Your task to perform on an android device: View the shopping cart on newegg. Add asus zenbook to the cart on newegg Image 0: 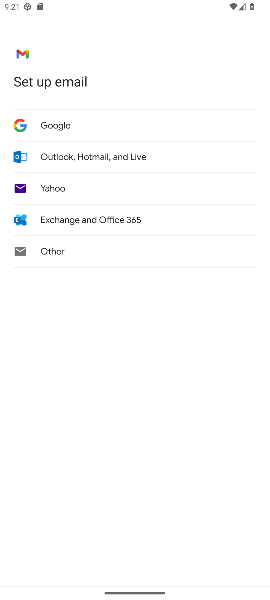
Step 0: press home button
Your task to perform on an android device: View the shopping cart on newegg. Add asus zenbook to the cart on newegg Image 1: 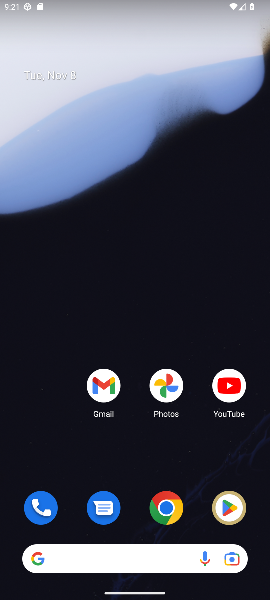
Step 1: click (167, 517)
Your task to perform on an android device: View the shopping cart on newegg. Add asus zenbook to the cart on newegg Image 2: 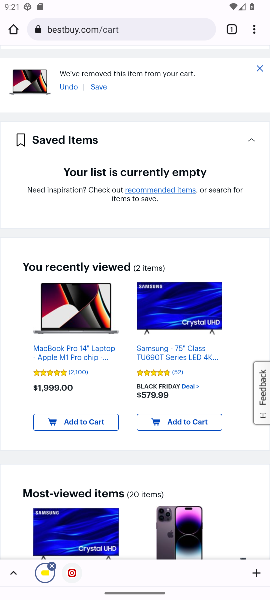
Step 2: click (111, 27)
Your task to perform on an android device: View the shopping cart on newegg. Add asus zenbook to the cart on newegg Image 3: 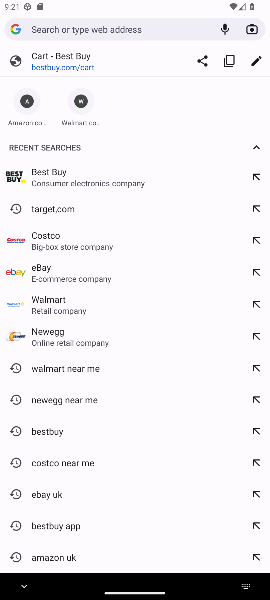
Step 3: click (69, 345)
Your task to perform on an android device: View the shopping cart on newegg. Add asus zenbook to the cart on newegg Image 4: 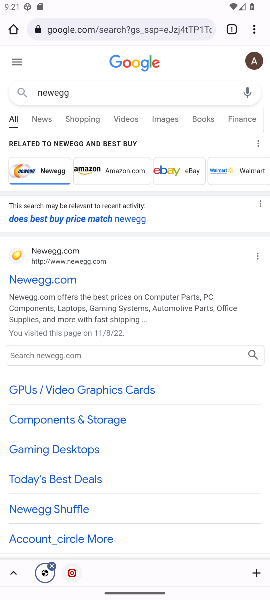
Step 4: click (69, 283)
Your task to perform on an android device: View the shopping cart on newegg. Add asus zenbook to the cart on newegg Image 5: 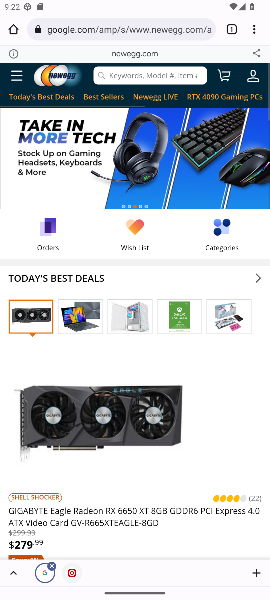
Step 5: click (126, 79)
Your task to perform on an android device: View the shopping cart on newegg. Add asus zenbook to the cart on newegg Image 6: 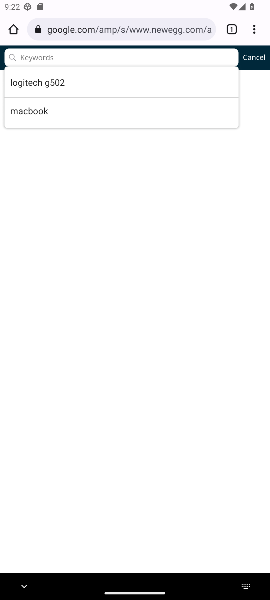
Step 6: type "asus zenbook"
Your task to perform on an android device: View the shopping cart on newegg. Add asus zenbook to the cart on newegg Image 7: 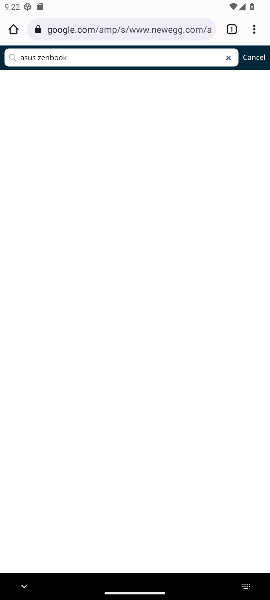
Step 7: click (230, 59)
Your task to perform on an android device: View the shopping cart on newegg. Add asus zenbook to the cart on newegg Image 8: 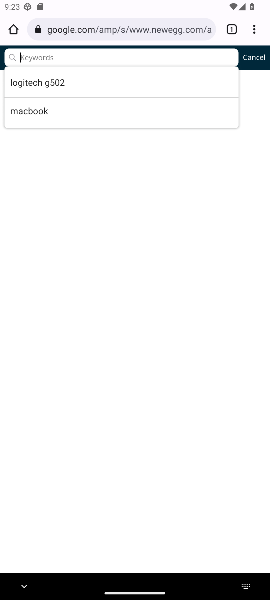
Step 8: type "asus zenbook"
Your task to perform on an android device: View the shopping cart on newegg. Add asus zenbook to the cart on newegg Image 9: 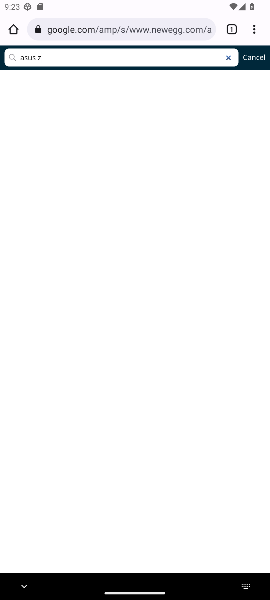
Step 9: type ""
Your task to perform on an android device: View the shopping cart on newegg. Add asus zenbook to the cart on newegg Image 10: 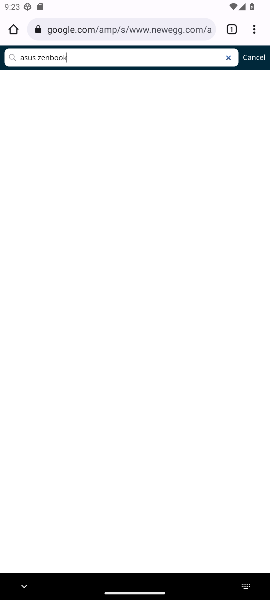
Step 10: click (227, 60)
Your task to perform on an android device: View the shopping cart on newegg. Add asus zenbook to the cart on newegg Image 11: 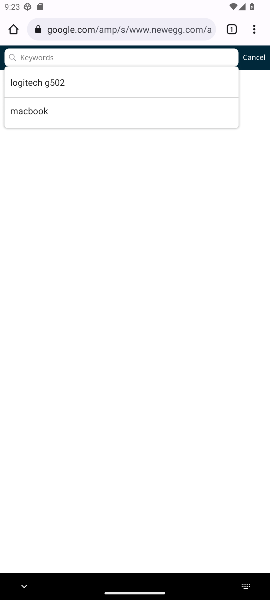
Step 11: press back button
Your task to perform on an android device: View the shopping cart on newegg. Add asus zenbook to the cart on newegg Image 12: 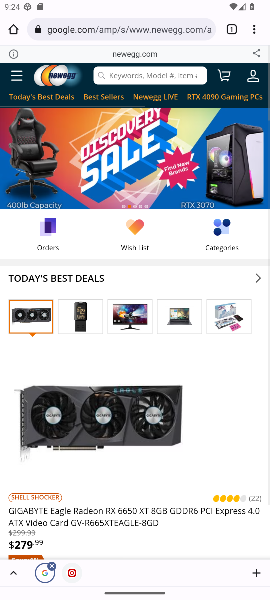
Step 12: click (124, 70)
Your task to perform on an android device: View the shopping cart on newegg. Add asus zenbook to the cart on newegg Image 13: 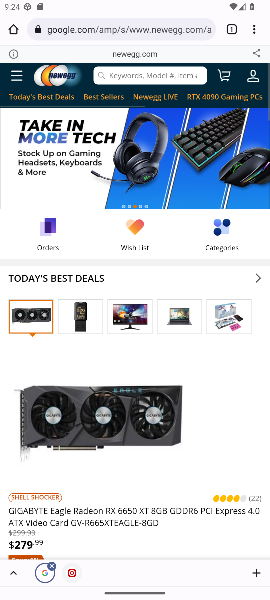
Step 13: click (155, 74)
Your task to perform on an android device: View the shopping cart on newegg. Add asus zenbook to the cart on newegg Image 14: 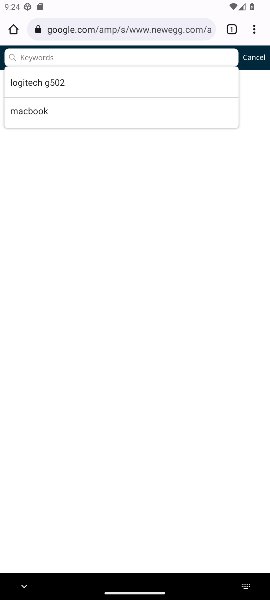
Step 14: click (45, 84)
Your task to perform on an android device: View the shopping cart on newegg. Add asus zenbook to the cart on newegg Image 15: 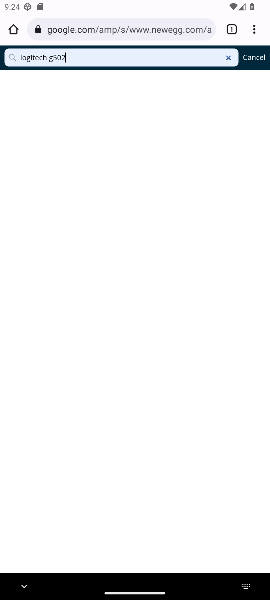
Step 15: click (228, 55)
Your task to perform on an android device: View the shopping cart on newegg. Add asus zenbook to the cart on newegg Image 16: 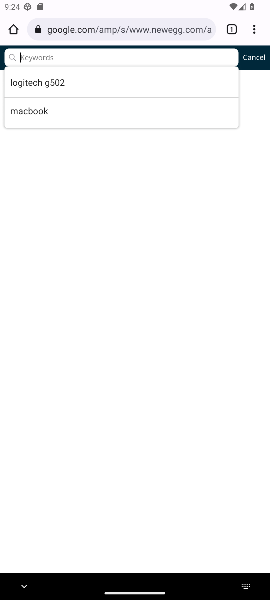
Step 16: type "zenbook"
Your task to perform on an android device: View the shopping cart on newegg. Add asus zenbook to the cart on newegg Image 17: 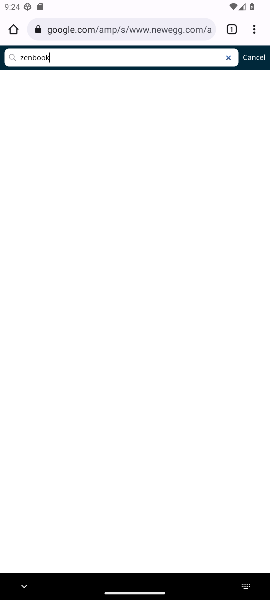
Step 17: task complete